Your task to perform on an android device: change notification settings in the gmail app Image 0: 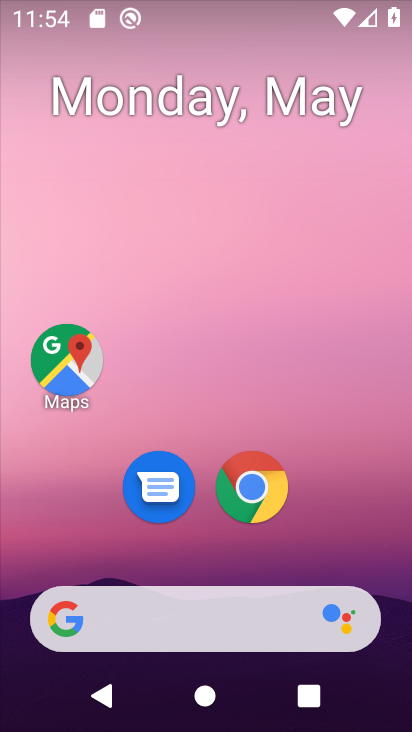
Step 0: drag from (377, 531) to (381, 122)
Your task to perform on an android device: change notification settings in the gmail app Image 1: 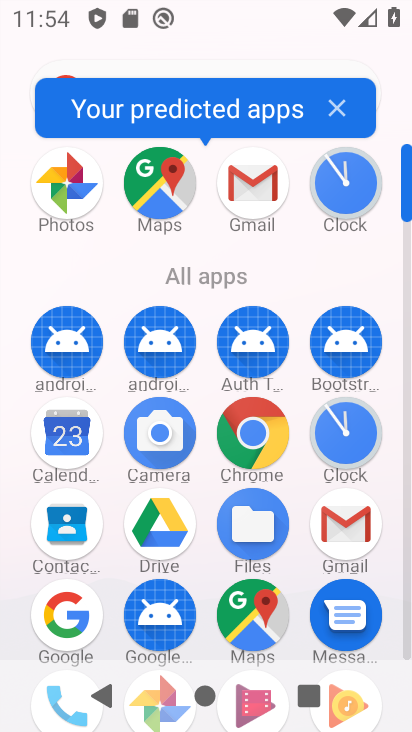
Step 1: click (364, 534)
Your task to perform on an android device: change notification settings in the gmail app Image 2: 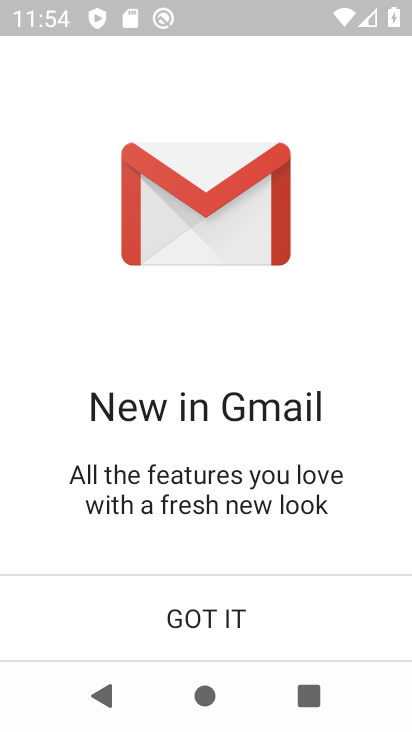
Step 2: click (232, 629)
Your task to perform on an android device: change notification settings in the gmail app Image 3: 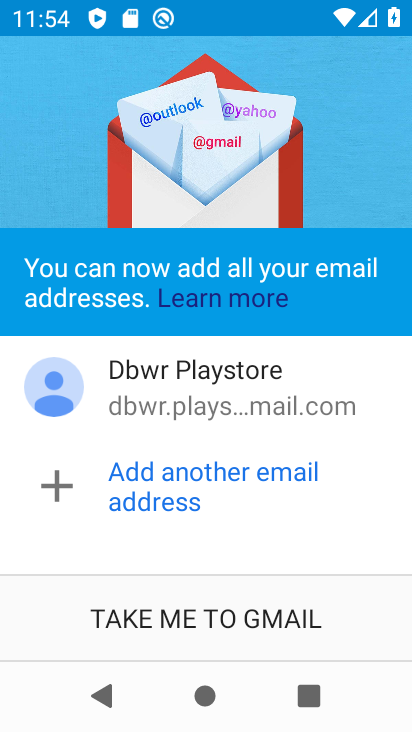
Step 3: click (232, 629)
Your task to perform on an android device: change notification settings in the gmail app Image 4: 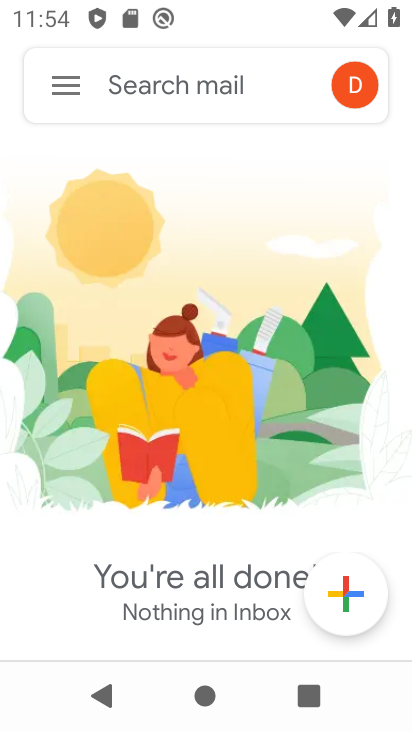
Step 4: click (75, 89)
Your task to perform on an android device: change notification settings in the gmail app Image 5: 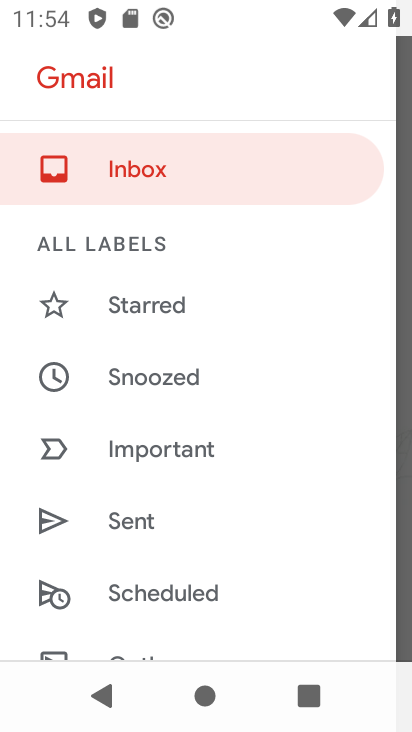
Step 5: drag from (298, 500) to (311, 294)
Your task to perform on an android device: change notification settings in the gmail app Image 6: 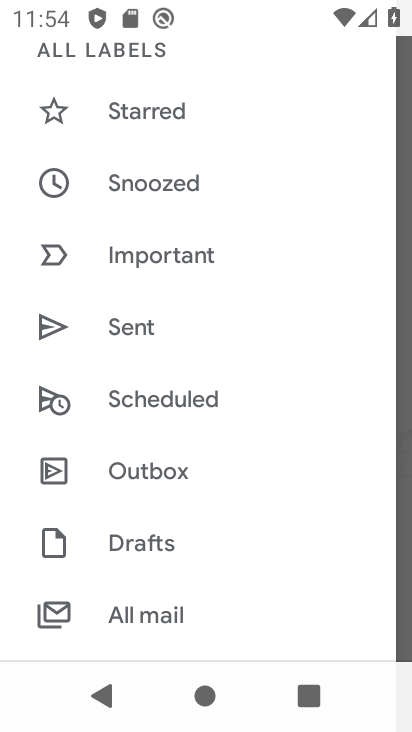
Step 6: drag from (324, 542) to (326, 294)
Your task to perform on an android device: change notification settings in the gmail app Image 7: 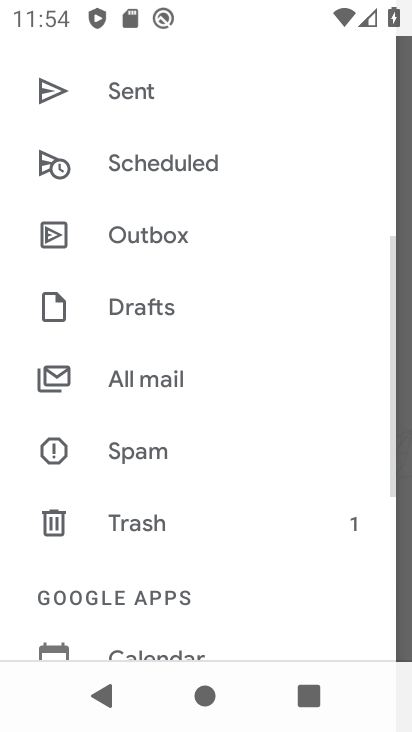
Step 7: drag from (295, 565) to (297, 358)
Your task to perform on an android device: change notification settings in the gmail app Image 8: 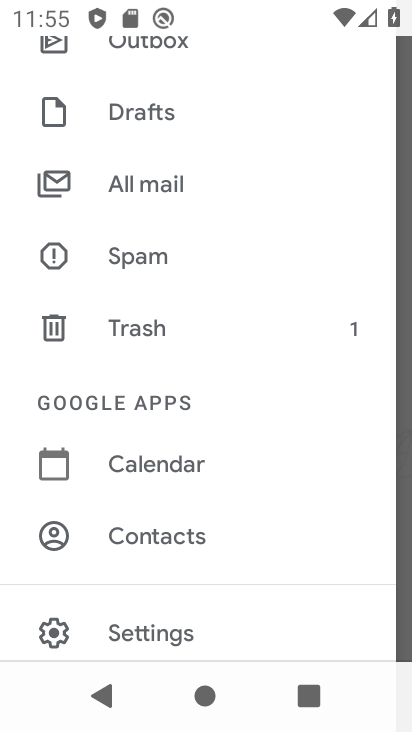
Step 8: drag from (292, 573) to (283, 374)
Your task to perform on an android device: change notification settings in the gmail app Image 9: 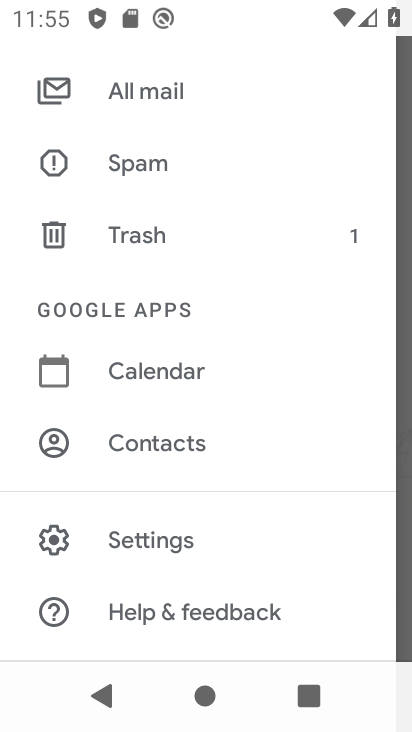
Step 9: click (184, 542)
Your task to perform on an android device: change notification settings in the gmail app Image 10: 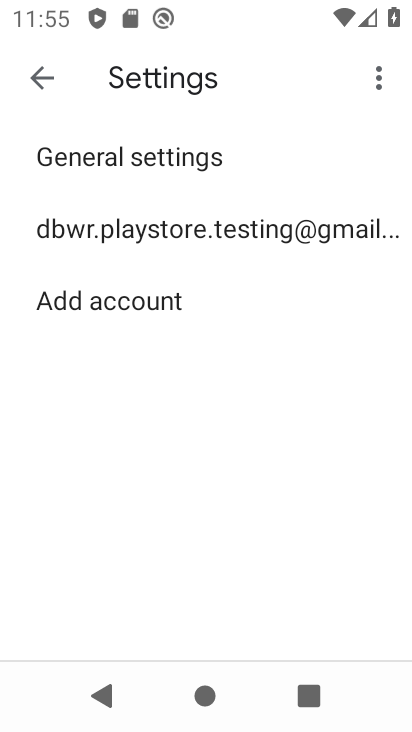
Step 10: click (338, 228)
Your task to perform on an android device: change notification settings in the gmail app Image 11: 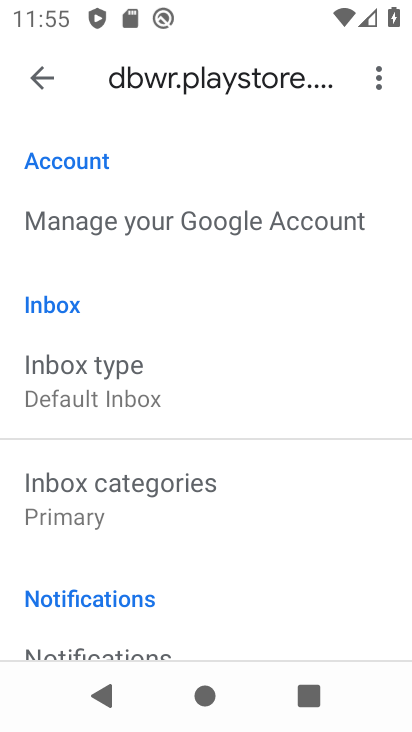
Step 11: drag from (344, 548) to (358, 369)
Your task to perform on an android device: change notification settings in the gmail app Image 12: 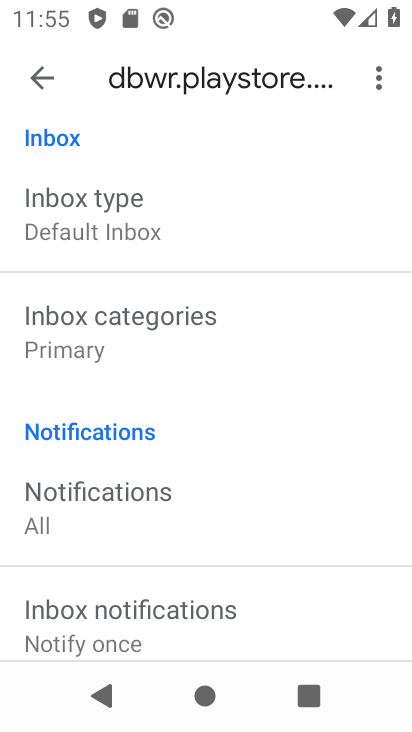
Step 12: drag from (351, 581) to (337, 403)
Your task to perform on an android device: change notification settings in the gmail app Image 13: 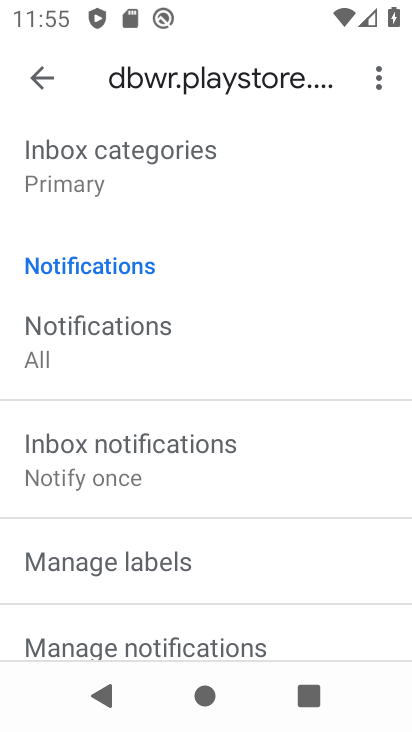
Step 13: drag from (338, 584) to (352, 415)
Your task to perform on an android device: change notification settings in the gmail app Image 14: 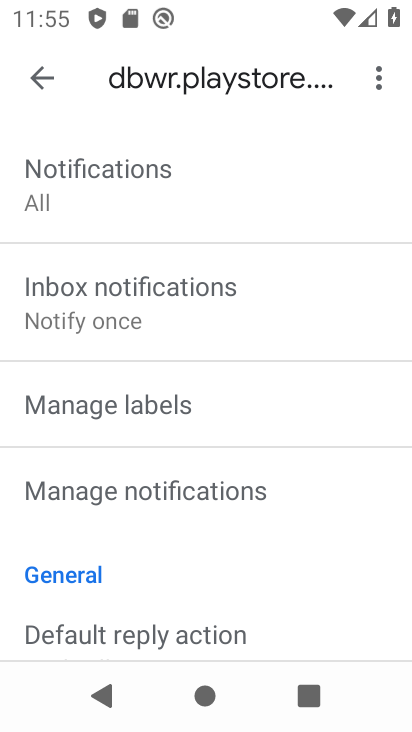
Step 14: drag from (352, 598) to (355, 448)
Your task to perform on an android device: change notification settings in the gmail app Image 15: 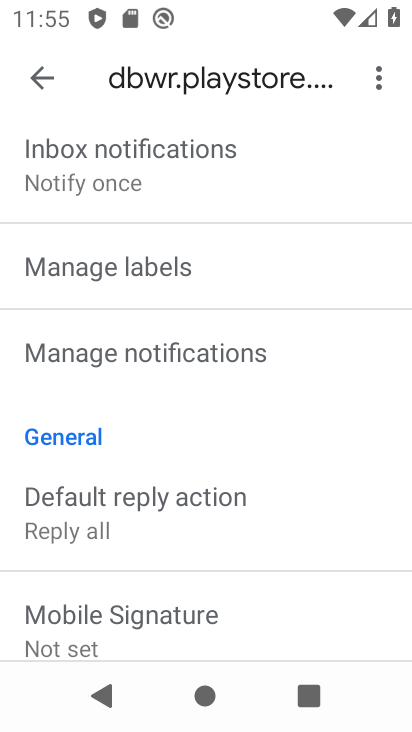
Step 15: drag from (342, 264) to (345, 421)
Your task to perform on an android device: change notification settings in the gmail app Image 16: 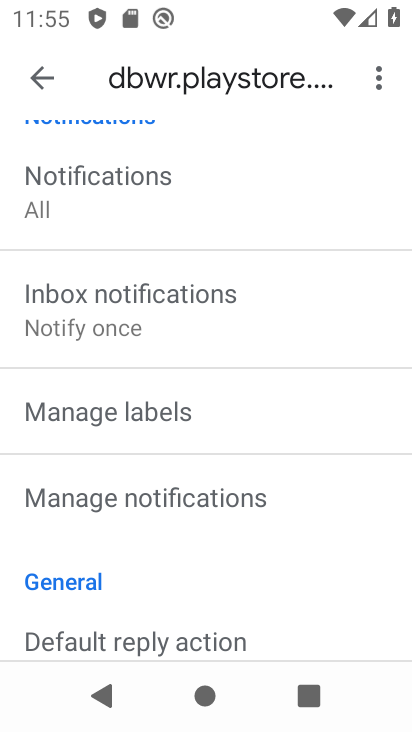
Step 16: click (283, 504)
Your task to perform on an android device: change notification settings in the gmail app Image 17: 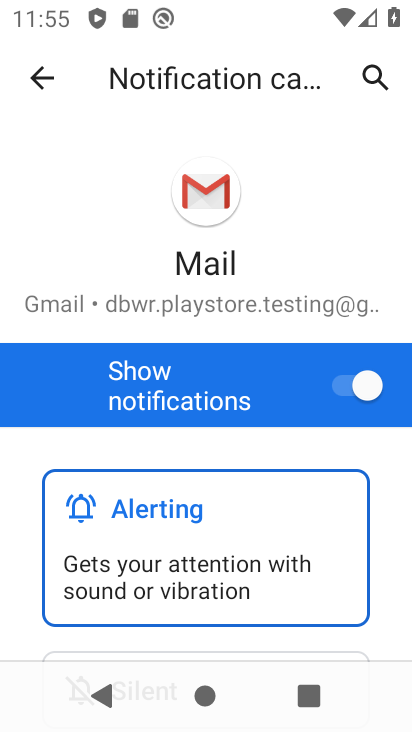
Step 17: click (373, 374)
Your task to perform on an android device: change notification settings in the gmail app Image 18: 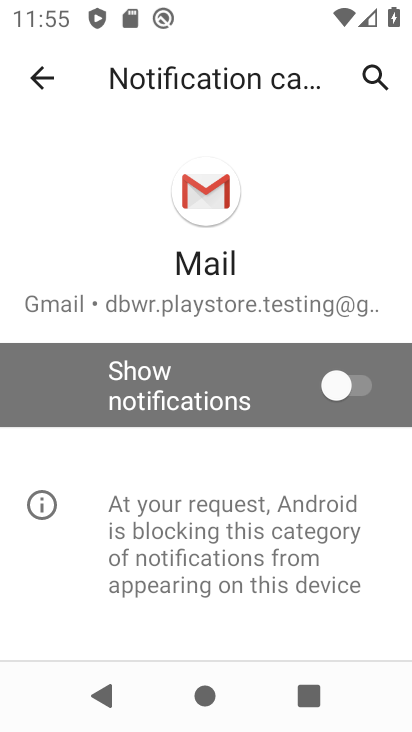
Step 18: task complete